Your task to perform on an android device: turn off location Image 0: 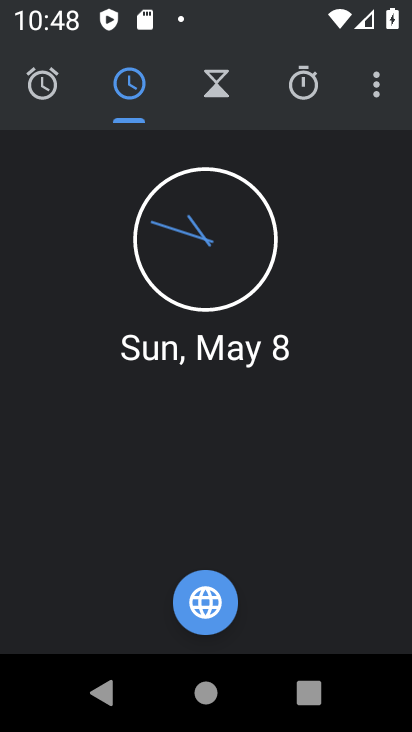
Step 0: press back button
Your task to perform on an android device: turn off location Image 1: 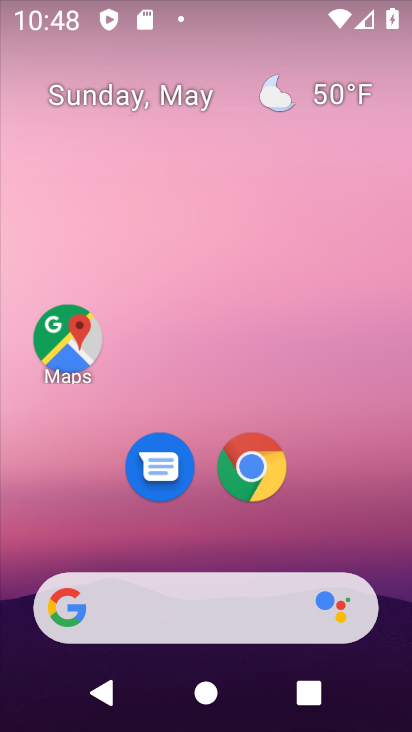
Step 1: drag from (209, 570) to (289, 102)
Your task to perform on an android device: turn off location Image 2: 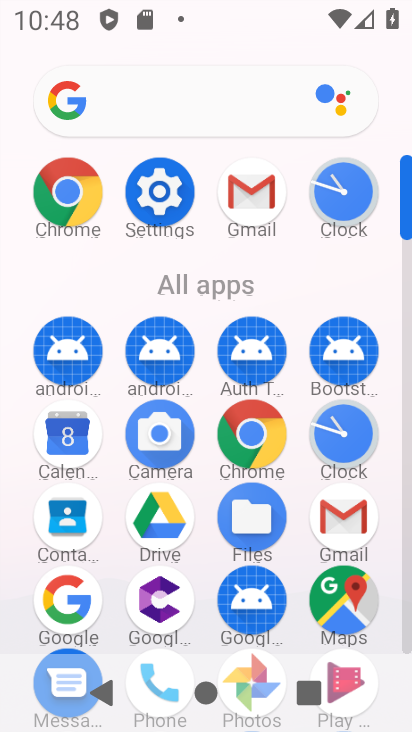
Step 2: drag from (192, 616) to (236, 475)
Your task to perform on an android device: turn off location Image 3: 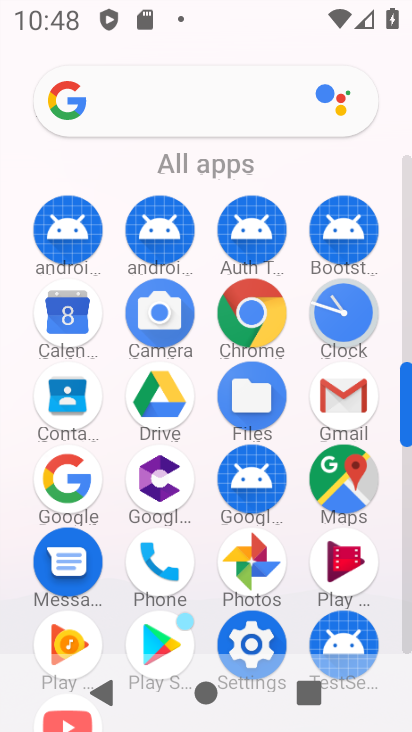
Step 3: click (258, 638)
Your task to perform on an android device: turn off location Image 4: 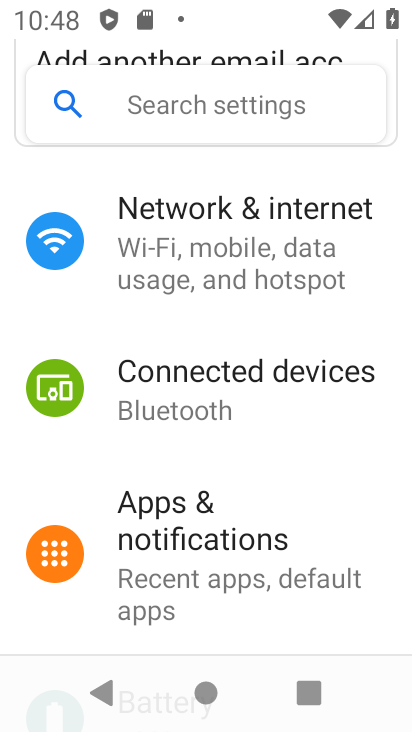
Step 4: drag from (236, 612) to (327, 329)
Your task to perform on an android device: turn off location Image 5: 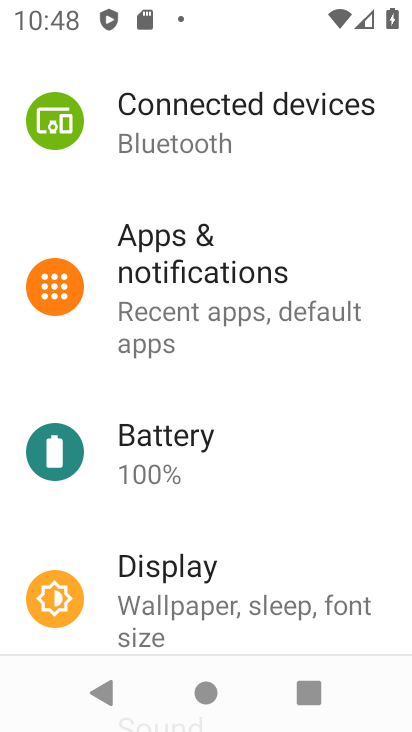
Step 5: drag from (234, 532) to (300, 274)
Your task to perform on an android device: turn off location Image 6: 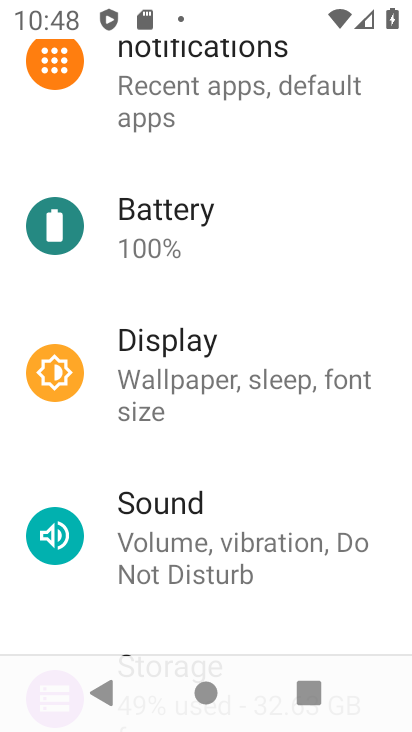
Step 6: drag from (228, 535) to (291, 227)
Your task to perform on an android device: turn off location Image 7: 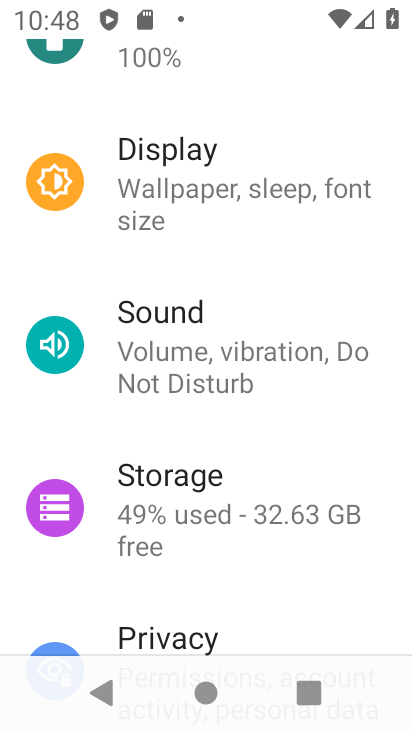
Step 7: drag from (207, 514) to (245, 336)
Your task to perform on an android device: turn off location Image 8: 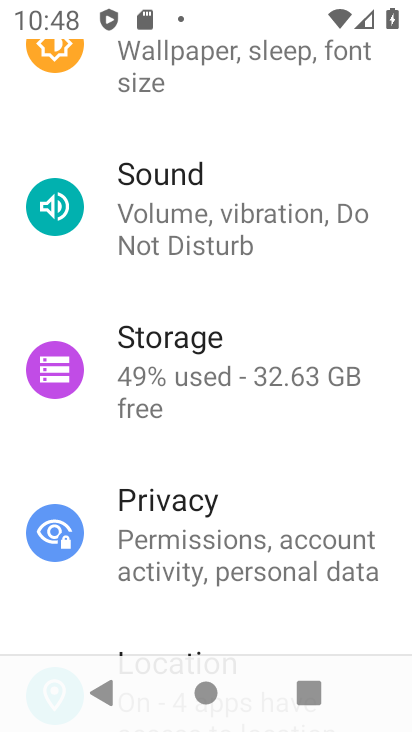
Step 8: drag from (170, 653) to (200, 520)
Your task to perform on an android device: turn off location Image 9: 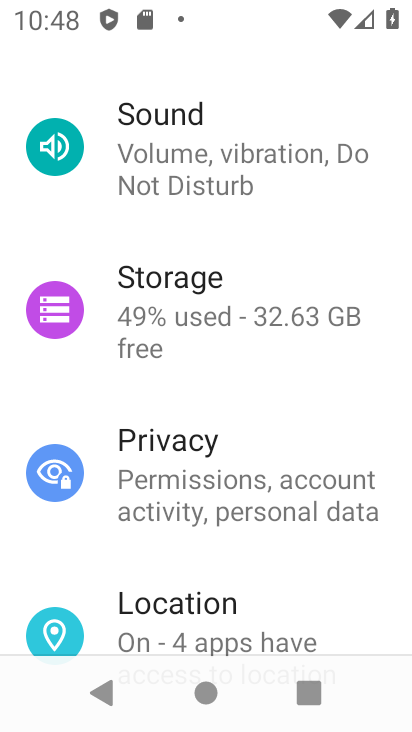
Step 9: click (197, 587)
Your task to perform on an android device: turn off location Image 10: 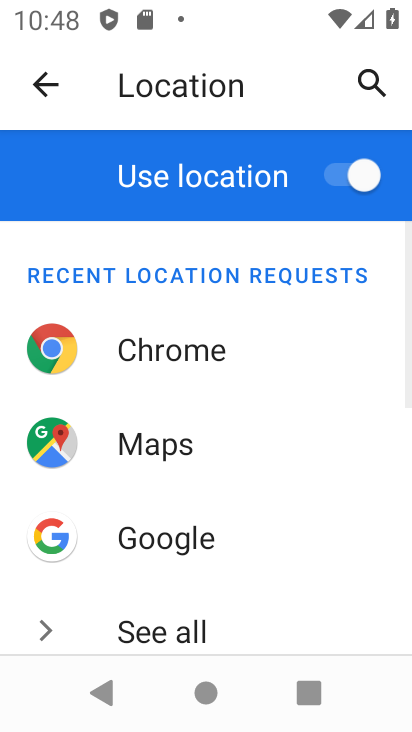
Step 10: click (330, 171)
Your task to perform on an android device: turn off location Image 11: 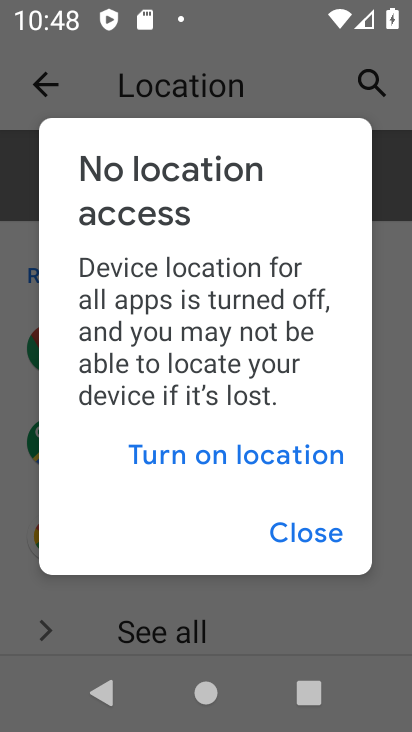
Step 11: click (318, 541)
Your task to perform on an android device: turn off location Image 12: 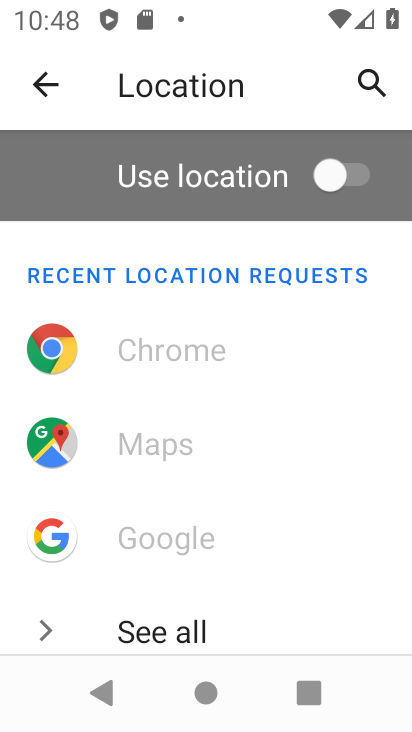
Step 12: task complete